Your task to perform on an android device: turn smart compose on in the gmail app Image 0: 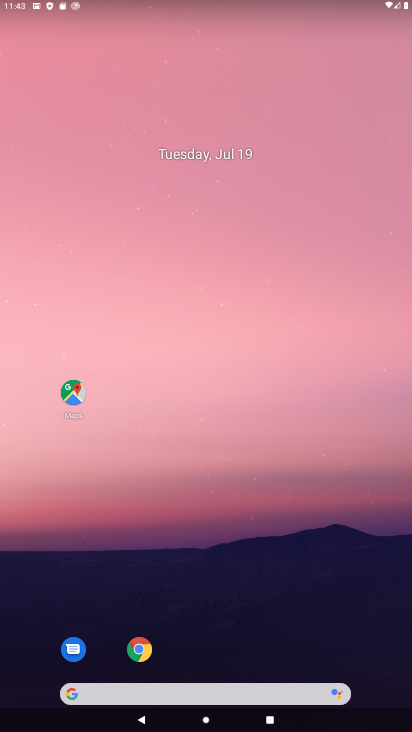
Step 0: drag from (185, 663) to (154, 118)
Your task to perform on an android device: turn smart compose on in the gmail app Image 1: 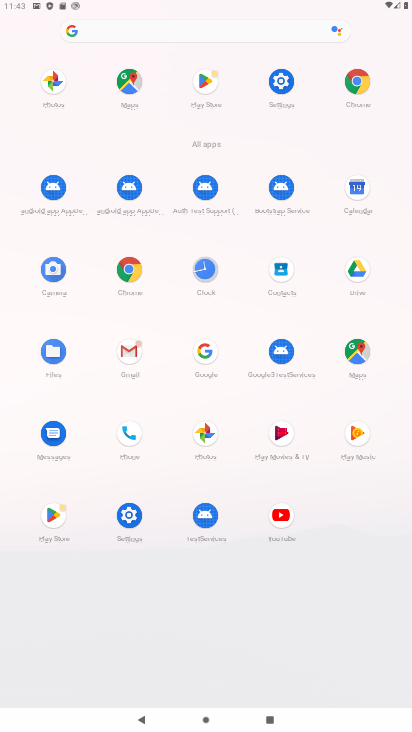
Step 1: click (125, 351)
Your task to perform on an android device: turn smart compose on in the gmail app Image 2: 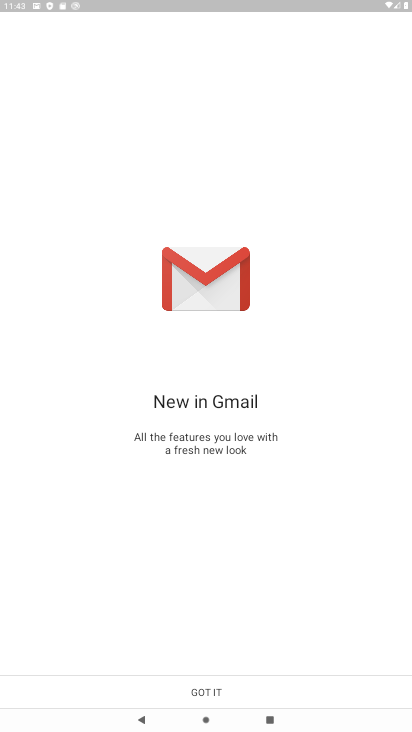
Step 2: click (214, 686)
Your task to perform on an android device: turn smart compose on in the gmail app Image 3: 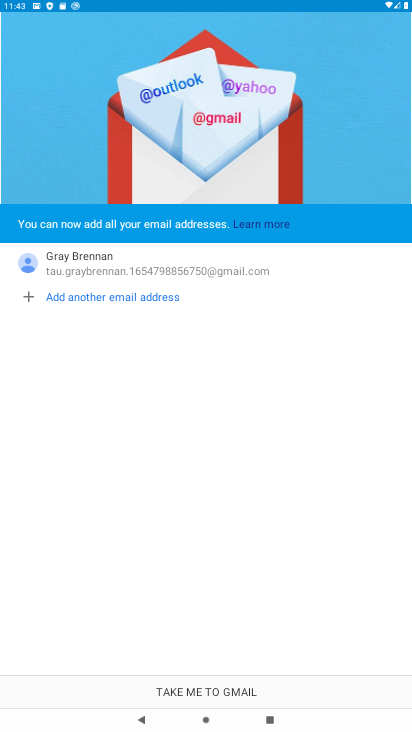
Step 3: click (214, 686)
Your task to perform on an android device: turn smart compose on in the gmail app Image 4: 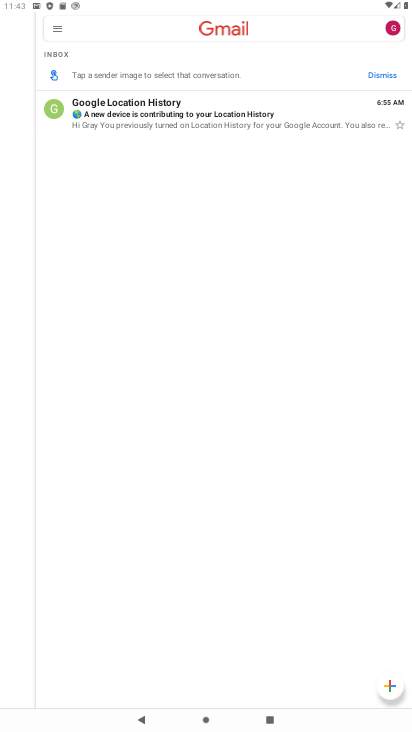
Step 4: click (49, 28)
Your task to perform on an android device: turn smart compose on in the gmail app Image 5: 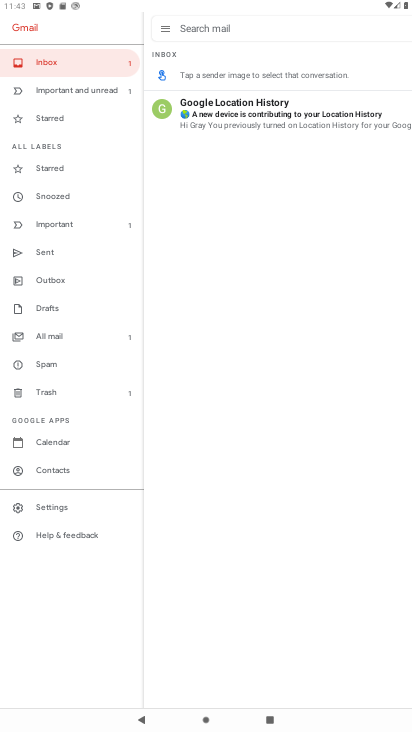
Step 5: click (36, 501)
Your task to perform on an android device: turn smart compose on in the gmail app Image 6: 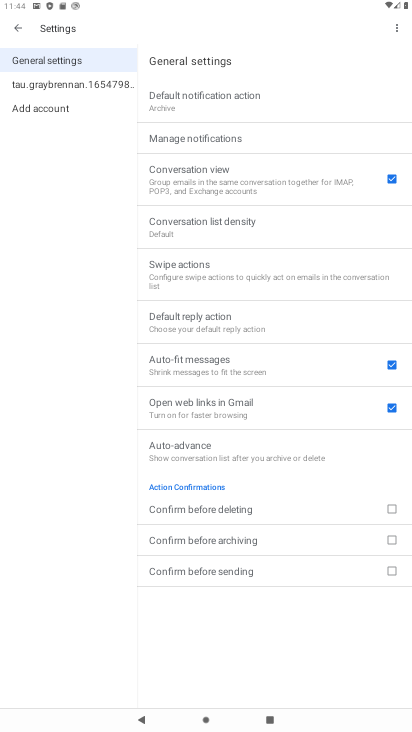
Step 6: click (69, 81)
Your task to perform on an android device: turn smart compose on in the gmail app Image 7: 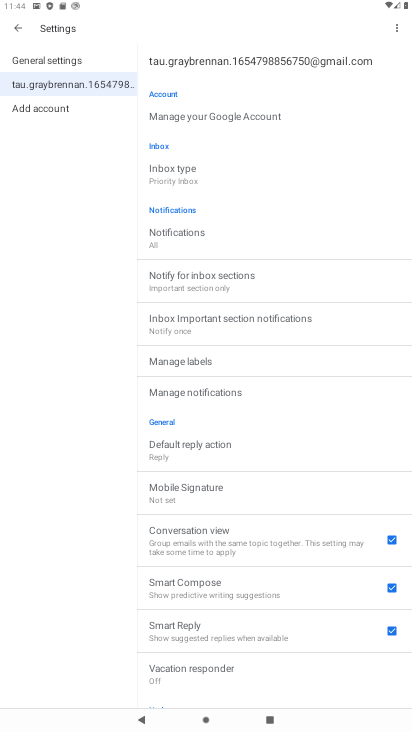
Step 7: task complete